Your task to perform on an android device: Open Yahoo.com Image 0: 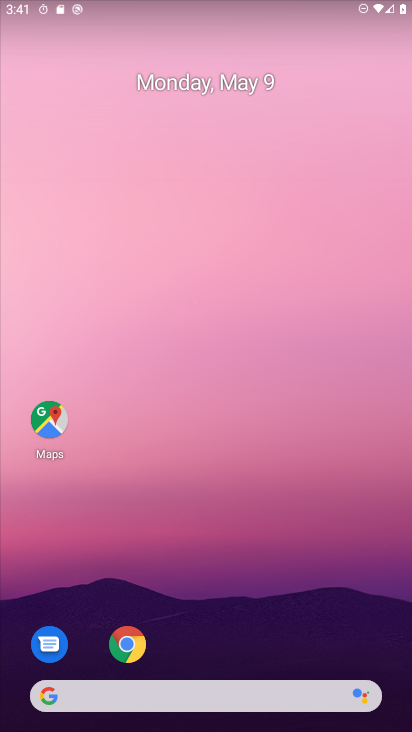
Step 0: click (132, 663)
Your task to perform on an android device: Open Yahoo.com Image 1: 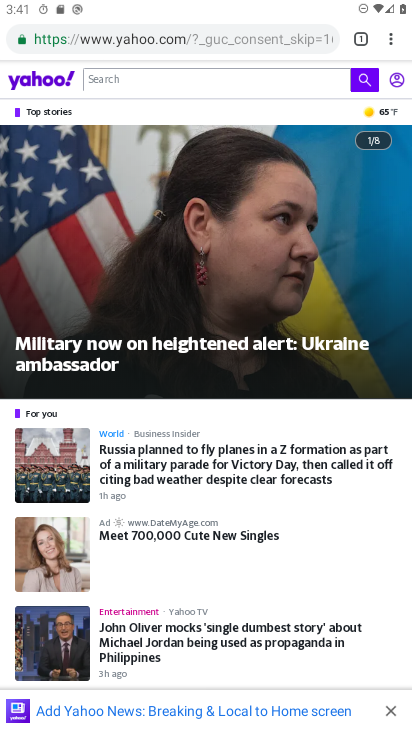
Step 1: task complete